Your task to perform on an android device: Open the stopwatch Image 0: 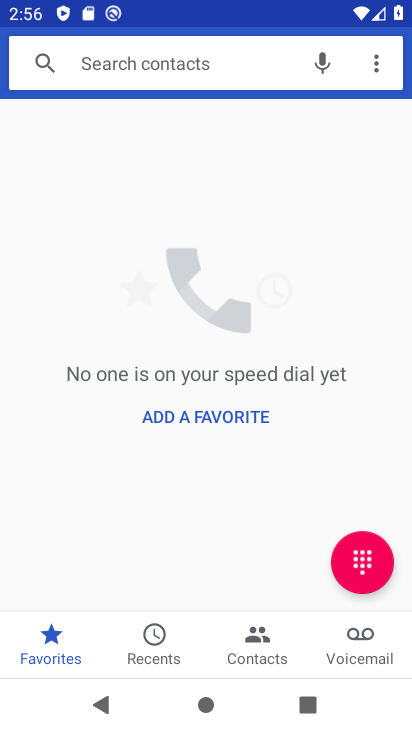
Step 0: press back button
Your task to perform on an android device: Open the stopwatch Image 1: 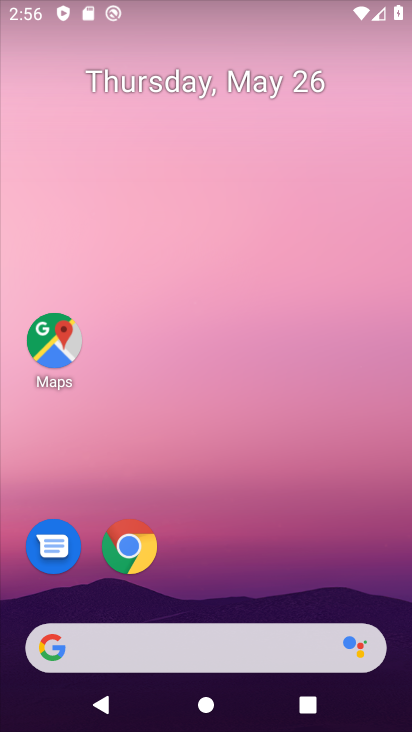
Step 1: drag from (266, 556) to (332, 4)
Your task to perform on an android device: Open the stopwatch Image 2: 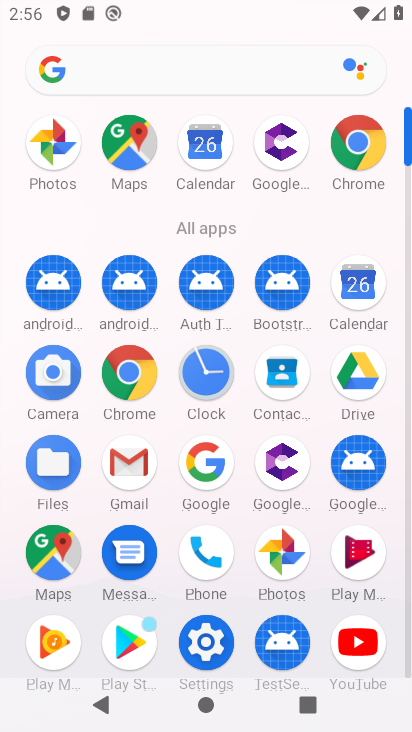
Step 2: click (201, 366)
Your task to perform on an android device: Open the stopwatch Image 3: 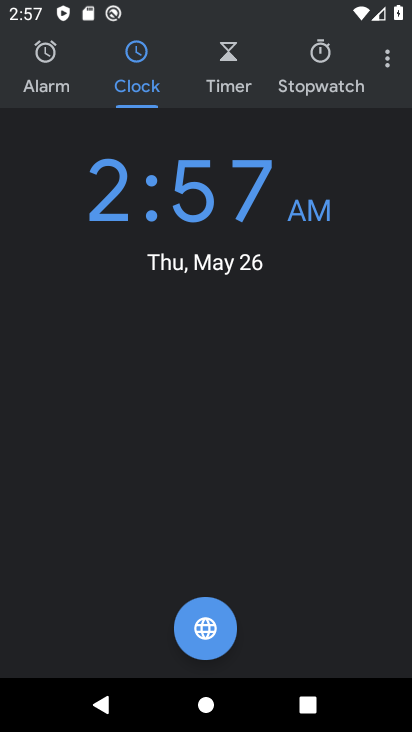
Step 3: click (314, 74)
Your task to perform on an android device: Open the stopwatch Image 4: 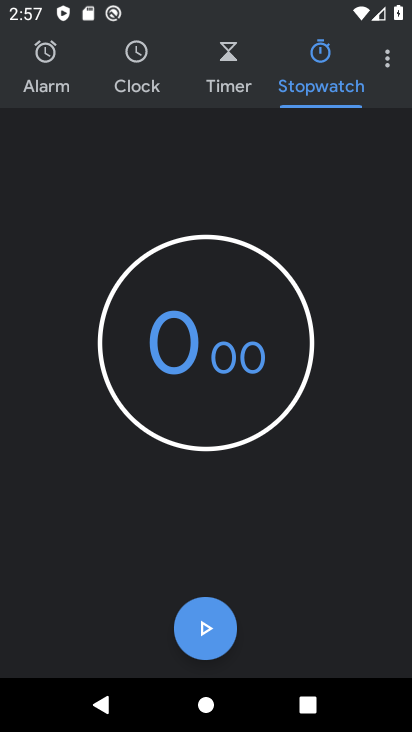
Step 4: task complete